Your task to perform on an android device: Search for Italian restaurants on Maps Image 0: 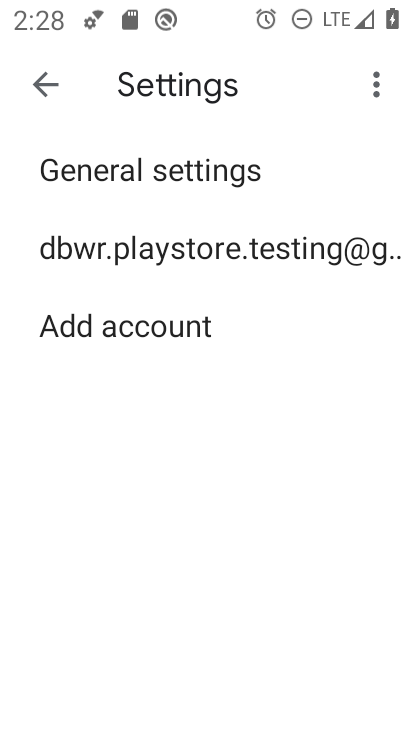
Step 0: press home button
Your task to perform on an android device: Search for Italian restaurants on Maps Image 1: 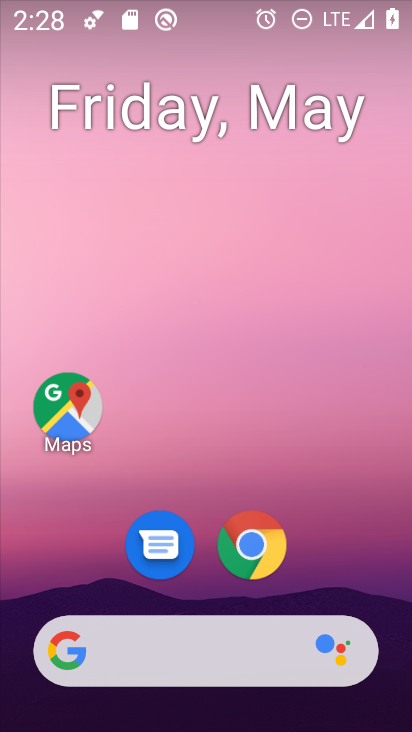
Step 1: click (251, 529)
Your task to perform on an android device: Search for Italian restaurants on Maps Image 2: 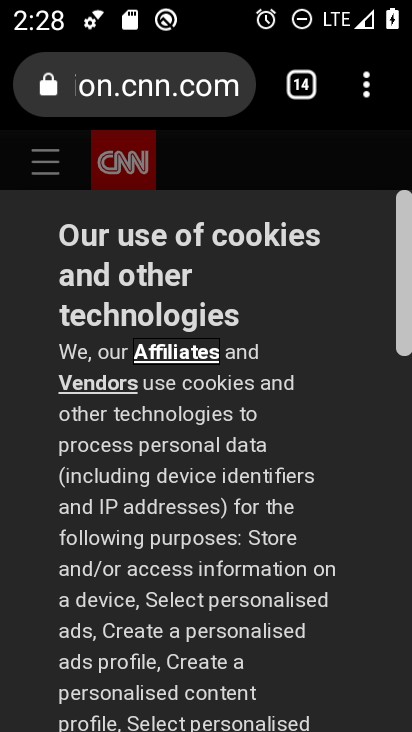
Step 2: press home button
Your task to perform on an android device: Search for Italian restaurants on Maps Image 3: 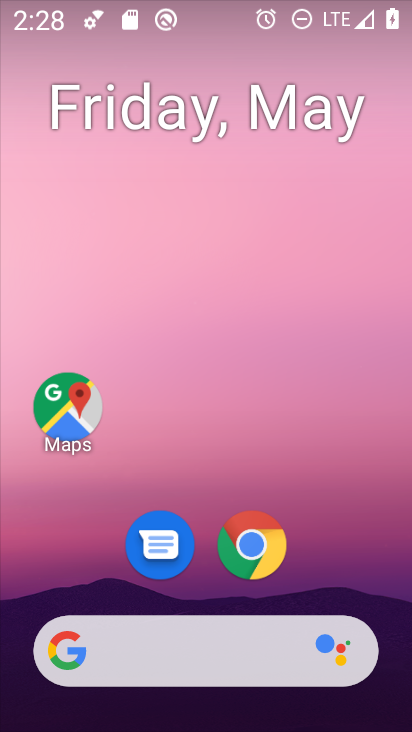
Step 3: click (57, 402)
Your task to perform on an android device: Search for Italian restaurants on Maps Image 4: 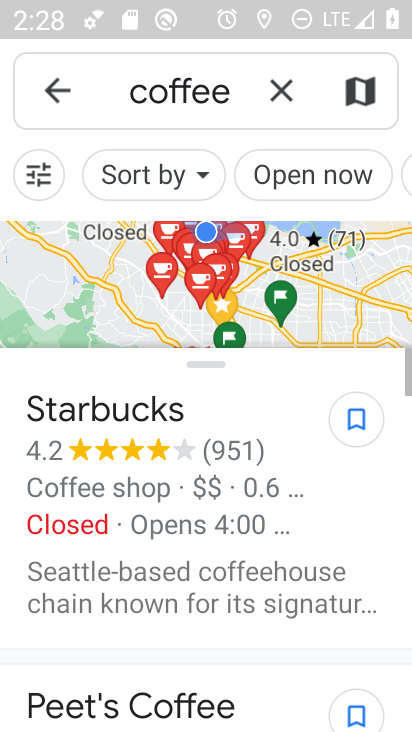
Step 4: click (288, 82)
Your task to perform on an android device: Search for Italian restaurants on Maps Image 5: 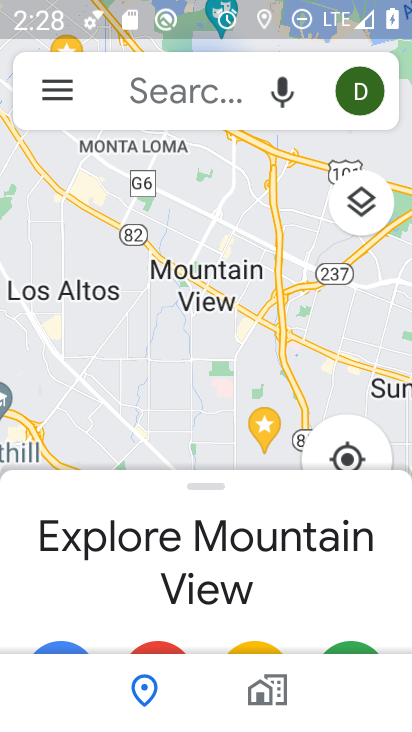
Step 5: click (150, 78)
Your task to perform on an android device: Search for Italian restaurants on Maps Image 6: 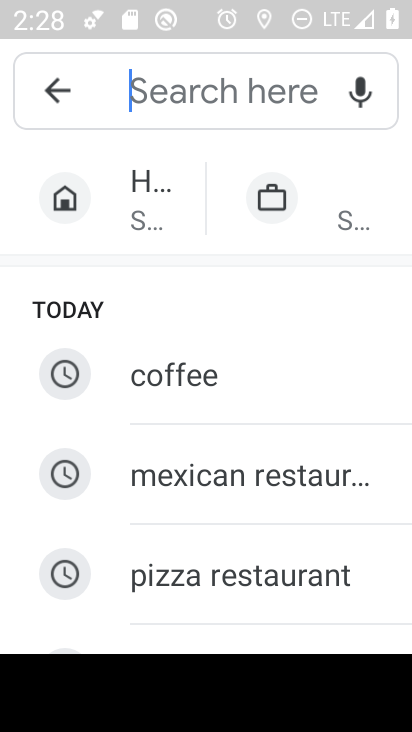
Step 6: drag from (261, 591) to (263, 346)
Your task to perform on an android device: Search for Italian restaurants on Maps Image 7: 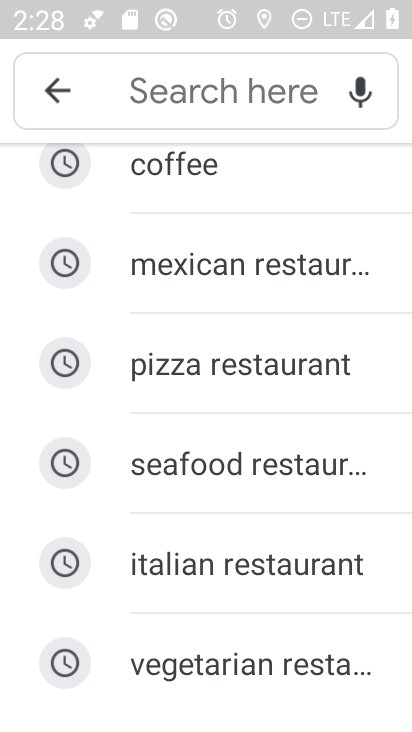
Step 7: click (188, 560)
Your task to perform on an android device: Search for Italian restaurants on Maps Image 8: 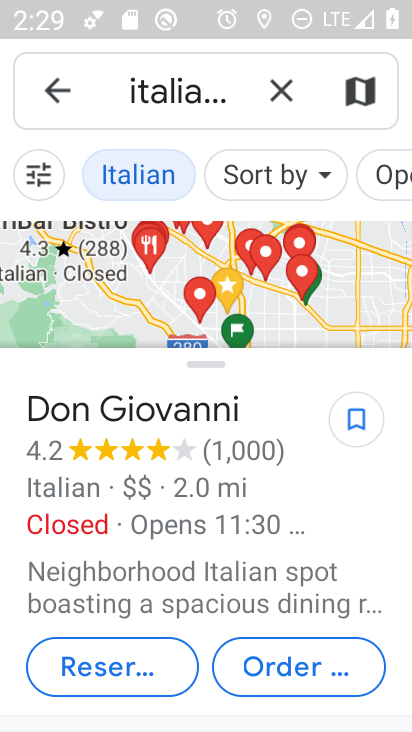
Step 8: task complete